Your task to perform on an android device: Is it going to rain tomorrow? Image 0: 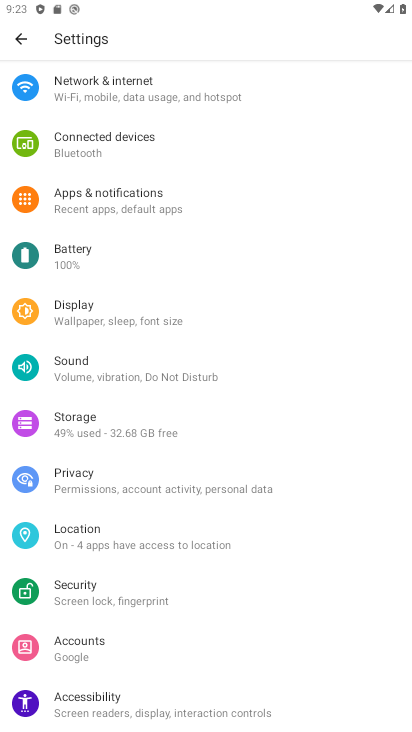
Step 0: press home button
Your task to perform on an android device: Is it going to rain tomorrow? Image 1: 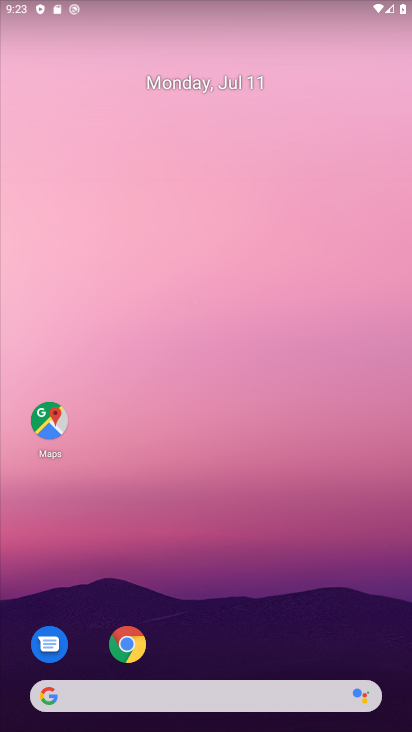
Step 1: click (227, 695)
Your task to perform on an android device: Is it going to rain tomorrow? Image 2: 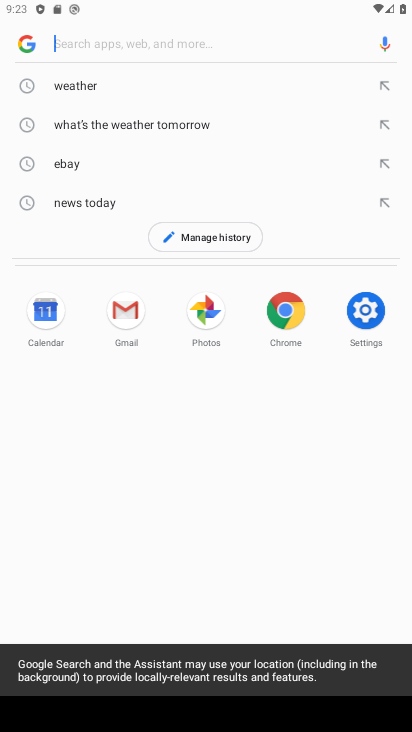
Step 2: click (94, 40)
Your task to perform on an android device: Is it going to rain tomorrow? Image 3: 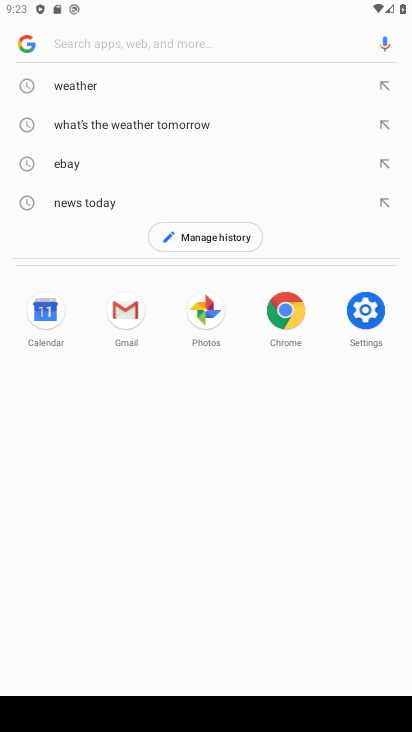
Step 3: click (130, 117)
Your task to perform on an android device: Is it going to rain tomorrow? Image 4: 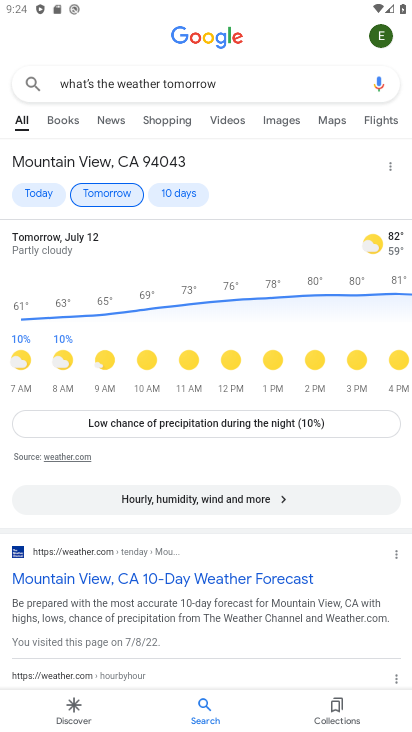
Step 4: task complete